Your task to perform on an android device: Go to Wikipedia Image 0: 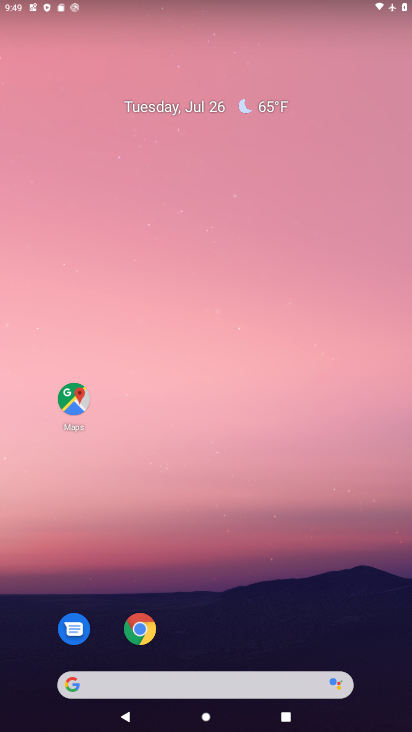
Step 0: click (142, 625)
Your task to perform on an android device: Go to Wikipedia Image 1: 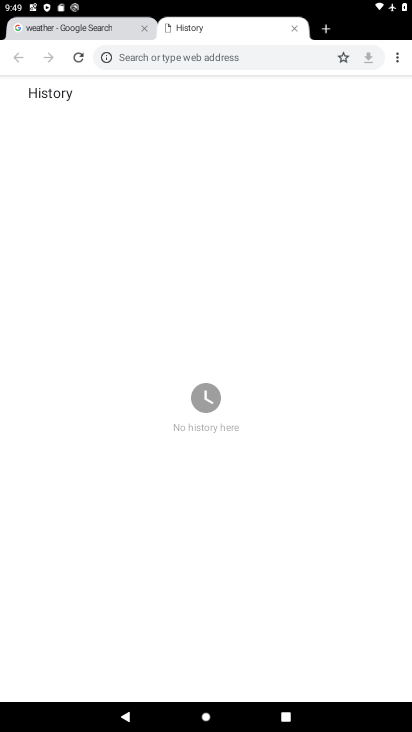
Step 1: click (198, 63)
Your task to perform on an android device: Go to Wikipedia Image 2: 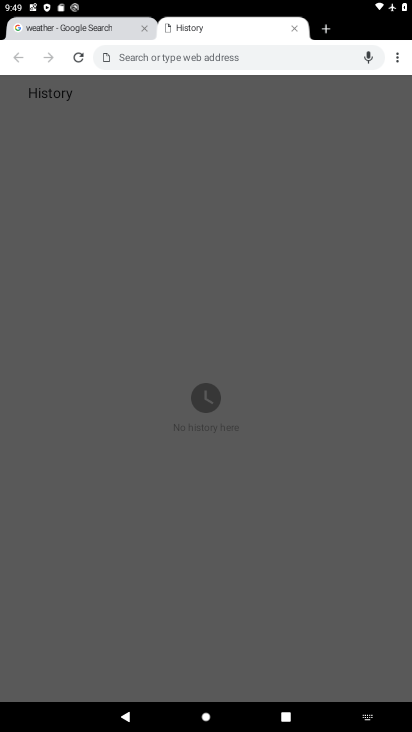
Step 2: type "wikipedia"
Your task to perform on an android device: Go to Wikipedia Image 3: 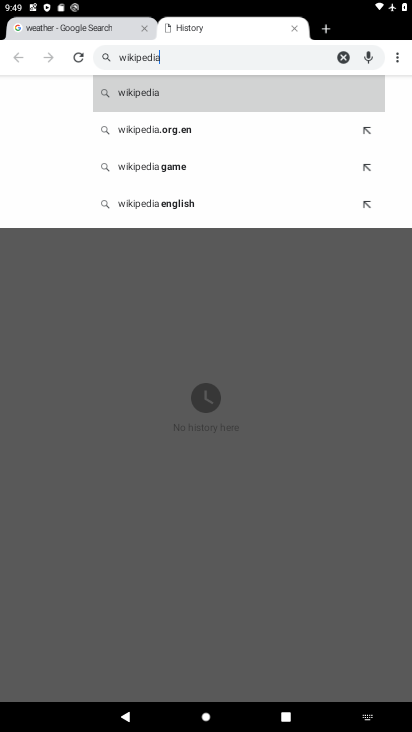
Step 3: click (138, 89)
Your task to perform on an android device: Go to Wikipedia Image 4: 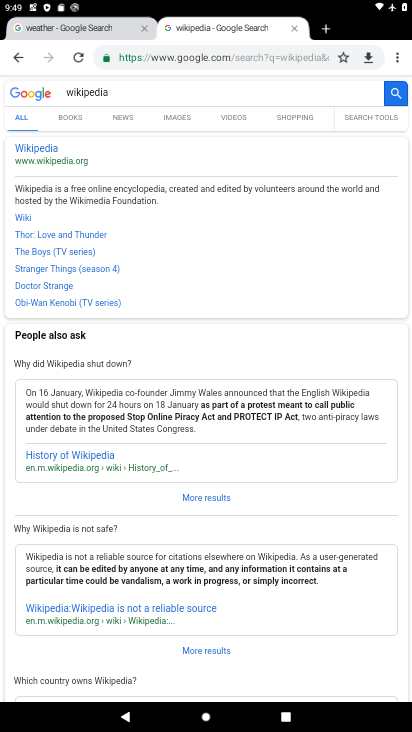
Step 4: click (52, 148)
Your task to perform on an android device: Go to Wikipedia Image 5: 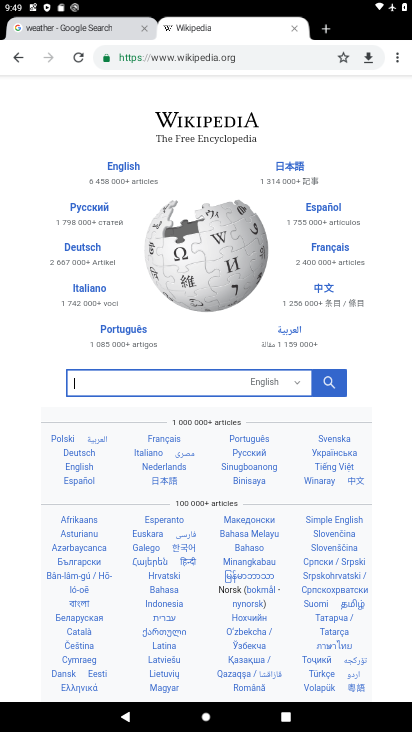
Step 5: task complete